Your task to perform on an android device: clear history in the chrome app Image 0: 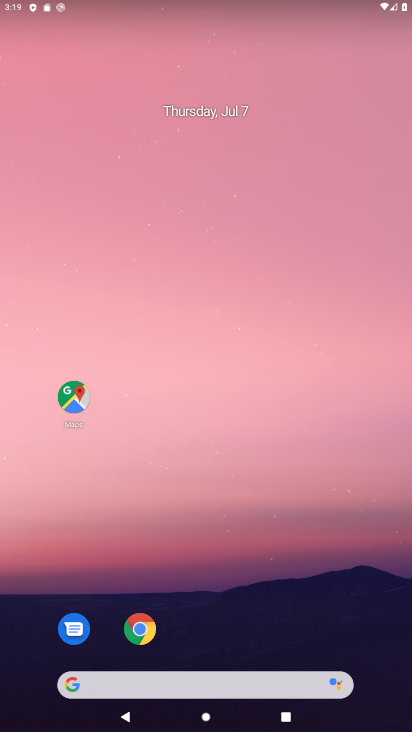
Step 0: click (122, 624)
Your task to perform on an android device: clear history in the chrome app Image 1: 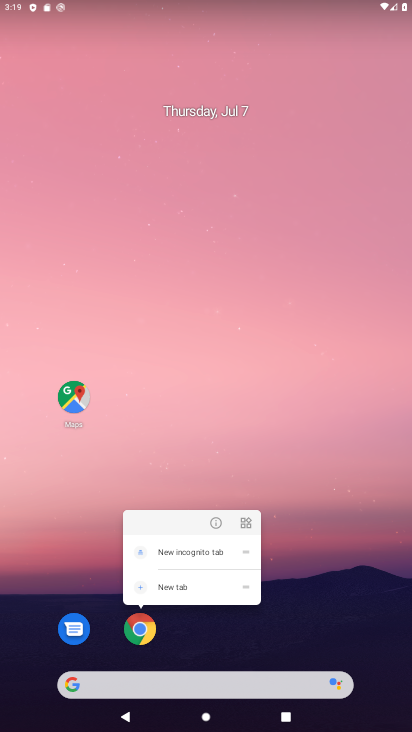
Step 1: click (128, 630)
Your task to perform on an android device: clear history in the chrome app Image 2: 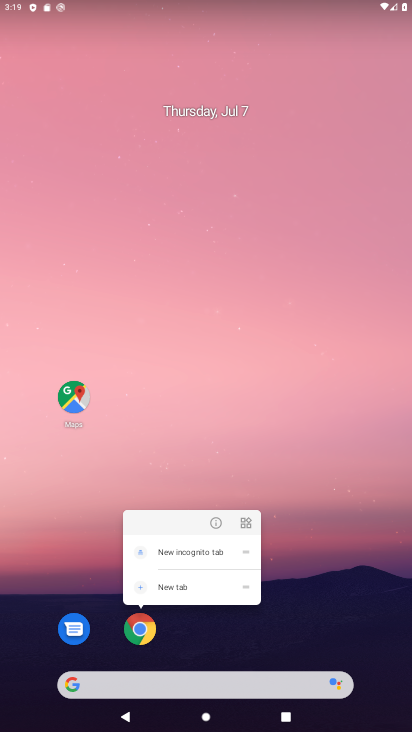
Step 2: click (142, 626)
Your task to perform on an android device: clear history in the chrome app Image 3: 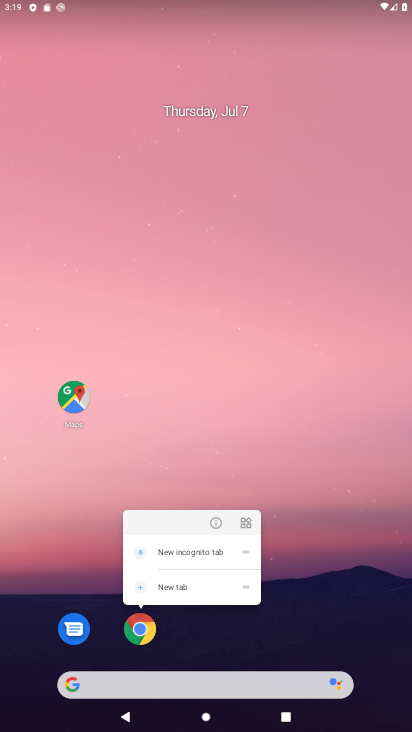
Step 3: click (135, 631)
Your task to perform on an android device: clear history in the chrome app Image 4: 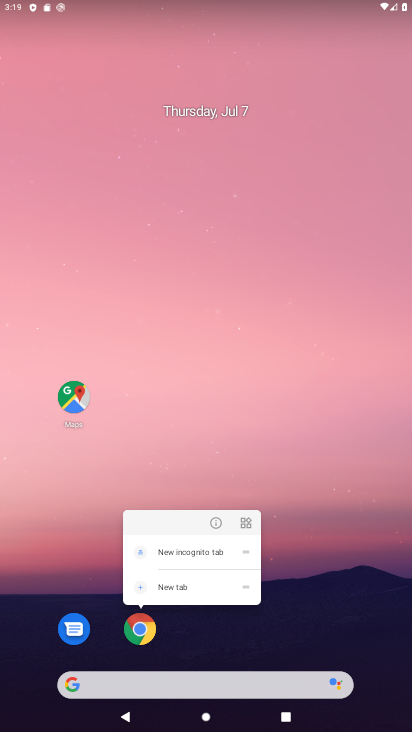
Step 4: click (146, 624)
Your task to perform on an android device: clear history in the chrome app Image 5: 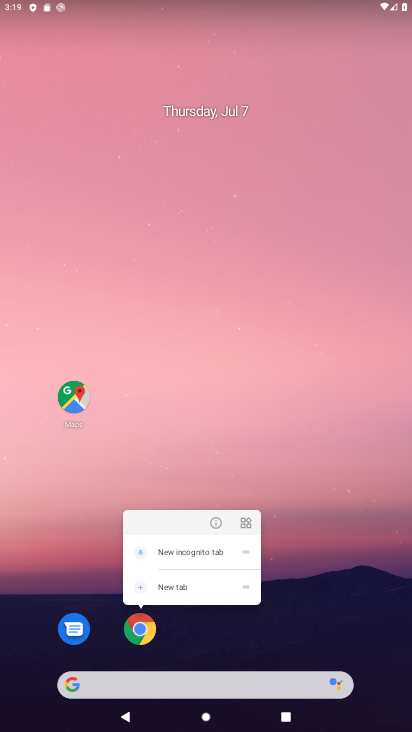
Step 5: click (135, 624)
Your task to perform on an android device: clear history in the chrome app Image 6: 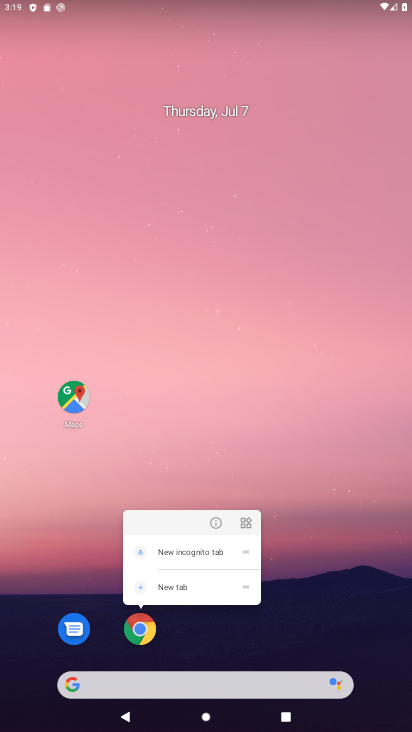
Step 6: click (141, 628)
Your task to perform on an android device: clear history in the chrome app Image 7: 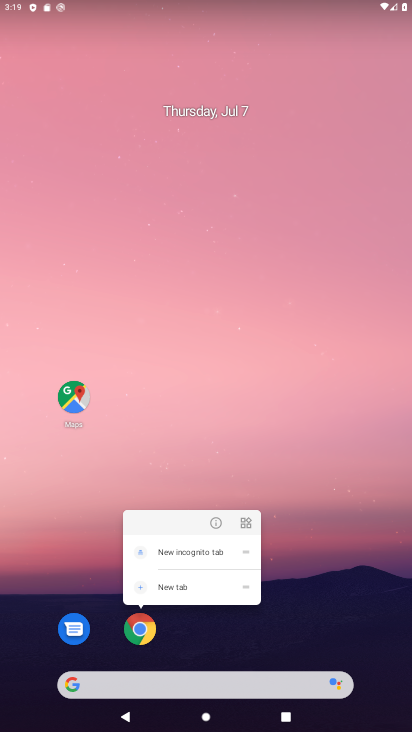
Step 7: task complete